Your task to perform on an android device: Search for the best rated tool bag on Lowe's. Image 0: 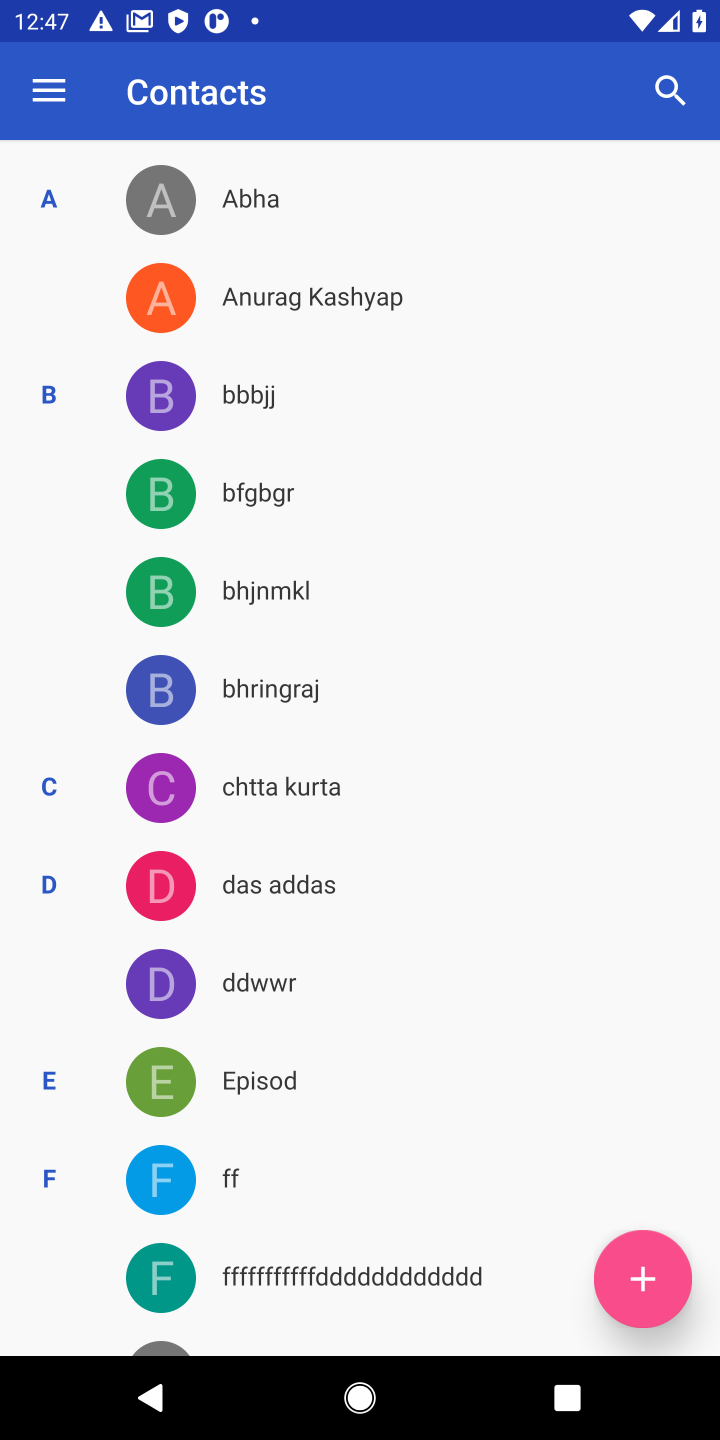
Step 0: press home button
Your task to perform on an android device: Search for the best rated tool bag on Lowe's. Image 1: 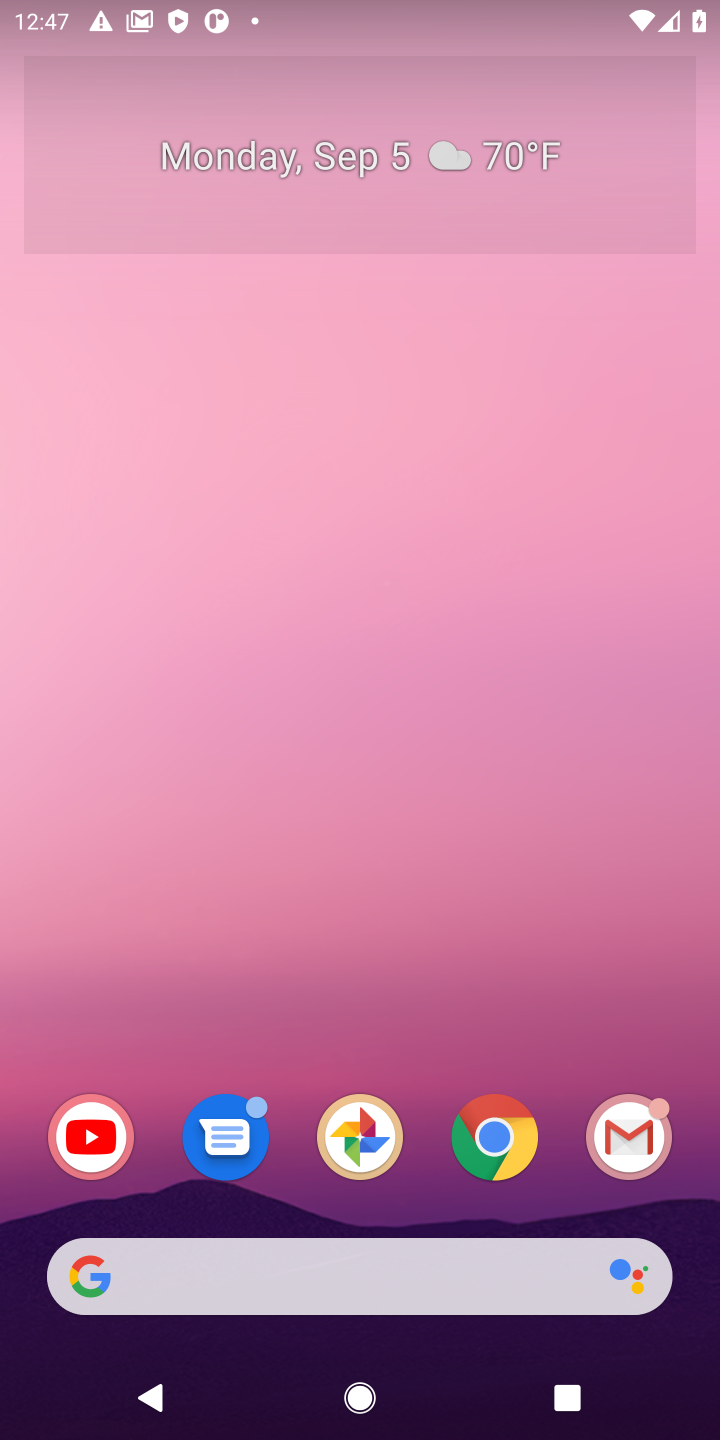
Step 1: click (500, 1111)
Your task to perform on an android device: Search for the best rated tool bag on Lowe's. Image 2: 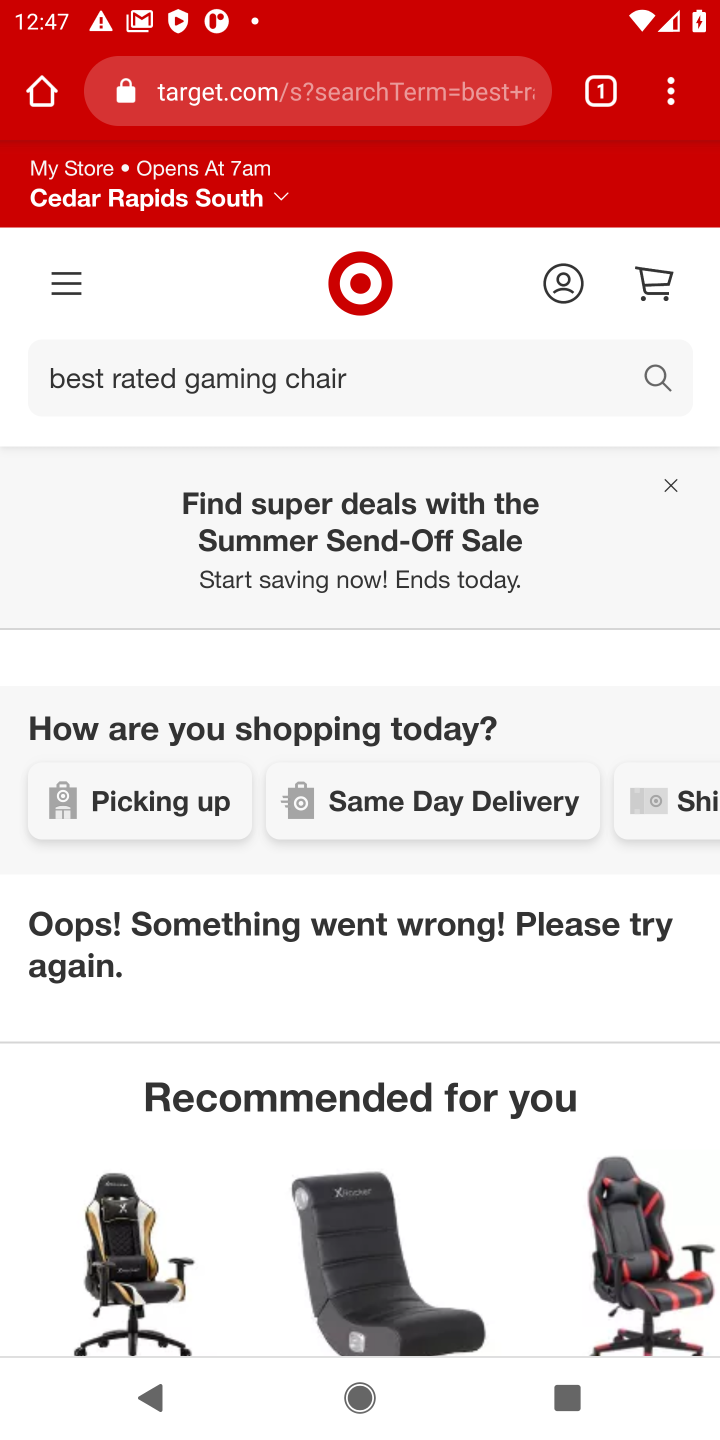
Step 2: click (260, 91)
Your task to perform on an android device: Search for the best rated tool bag on Lowe's. Image 3: 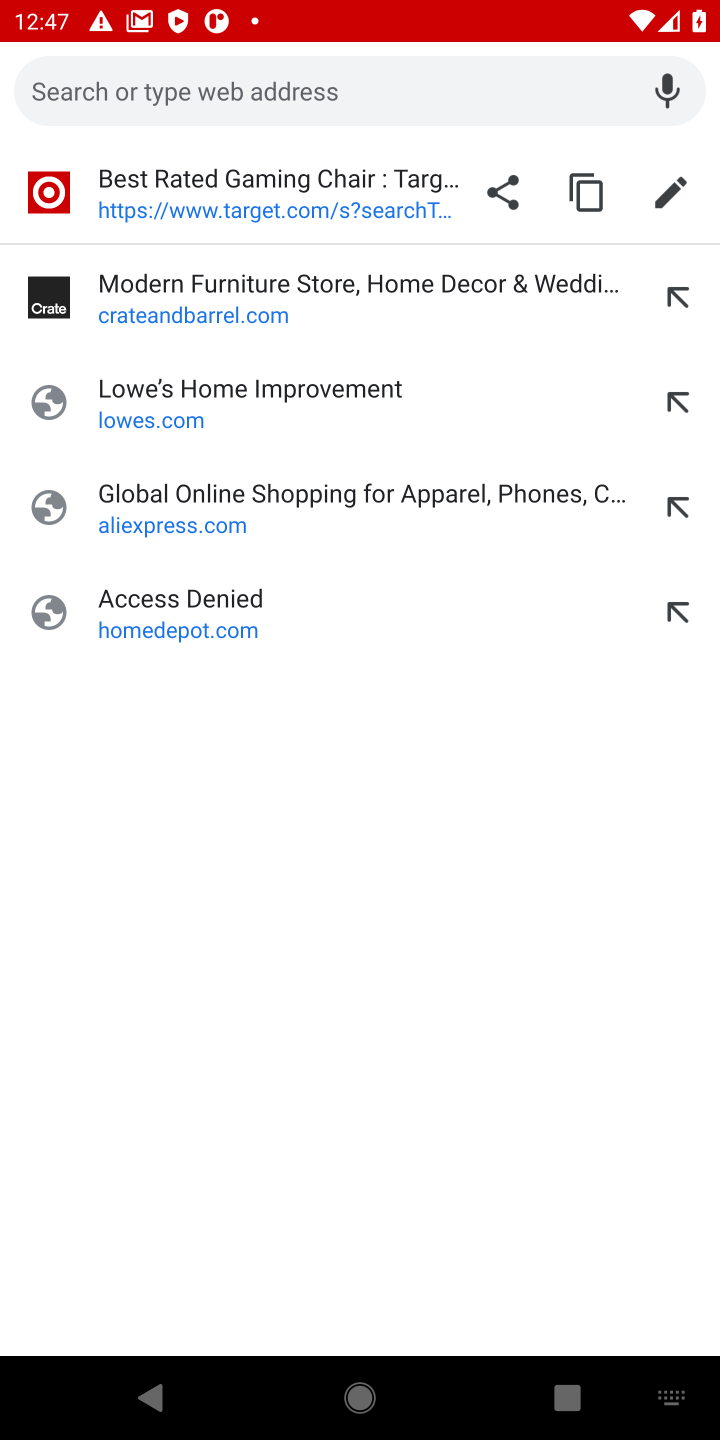
Step 3: type "lowes"
Your task to perform on an android device: Search for the best rated tool bag on Lowe's. Image 4: 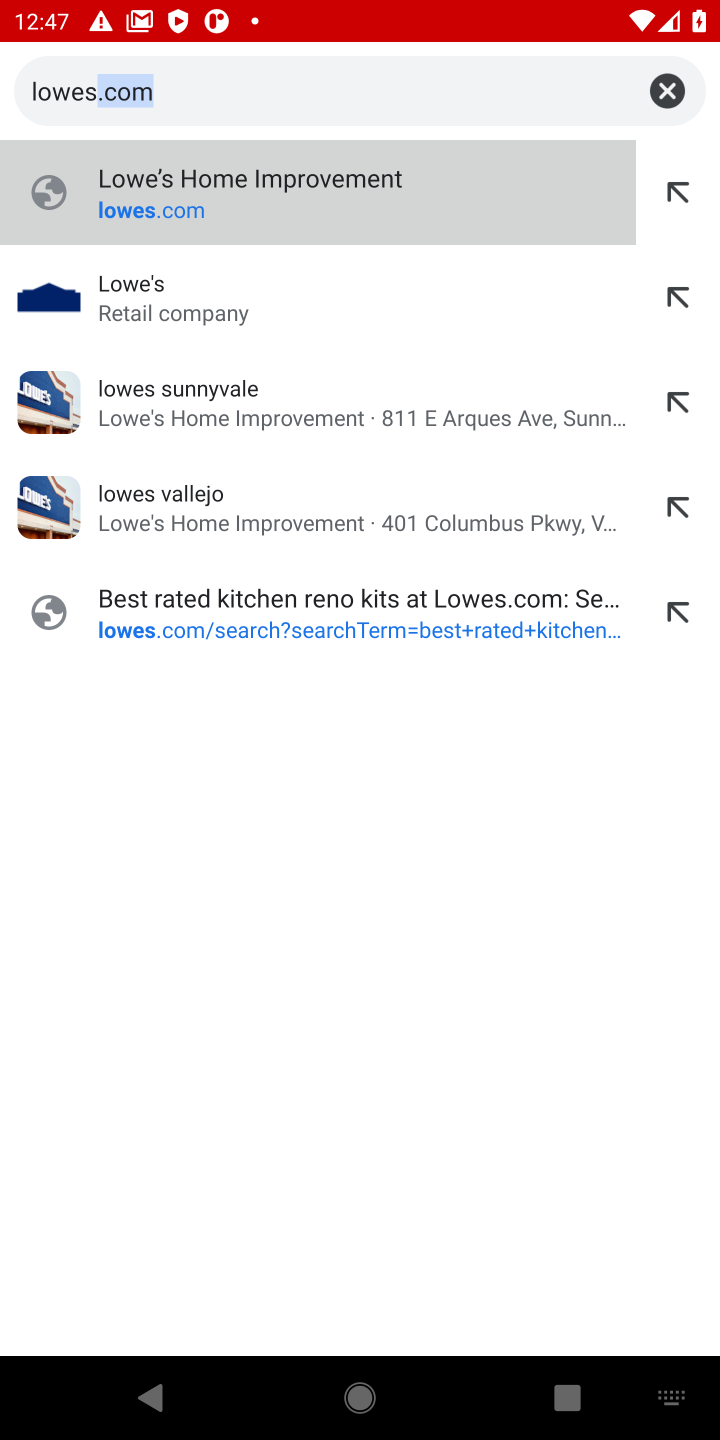
Step 4: click (314, 232)
Your task to perform on an android device: Search for the best rated tool bag on Lowe's. Image 5: 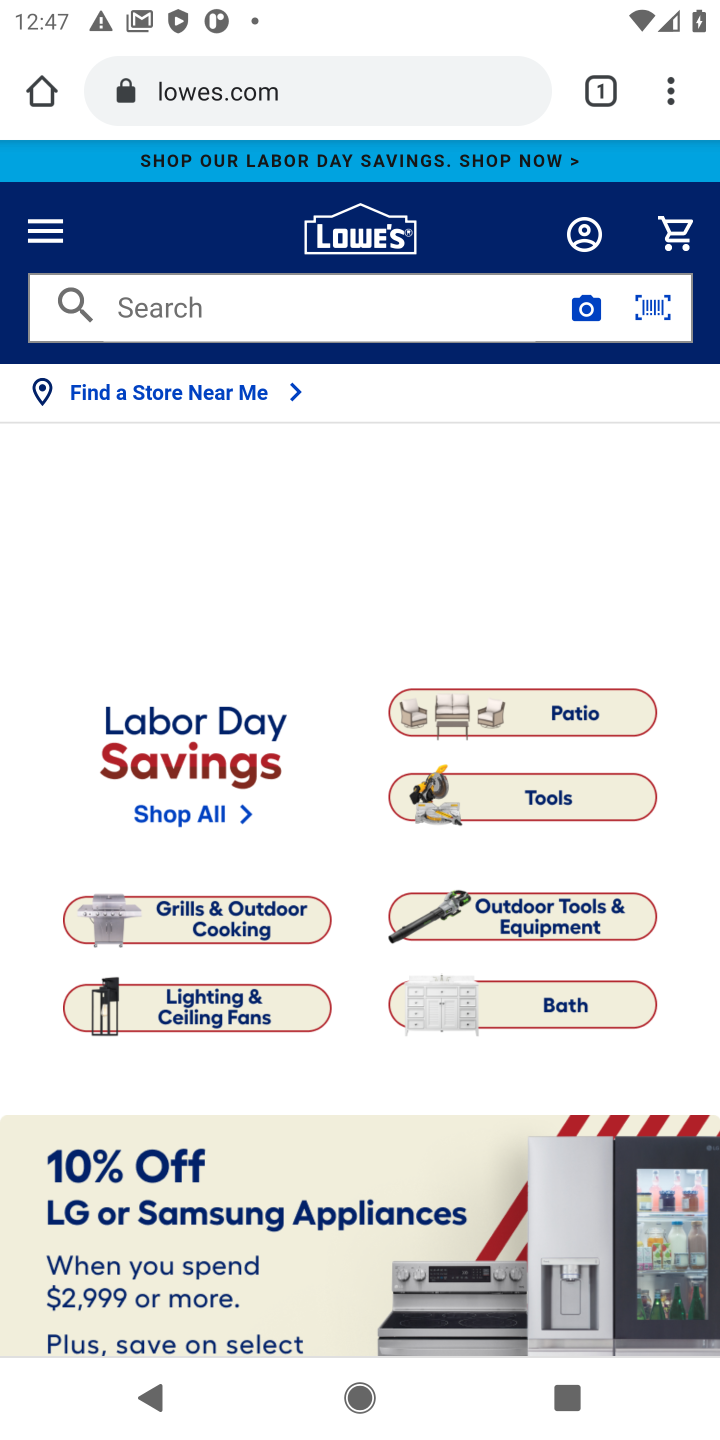
Step 5: click (281, 313)
Your task to perform on an android device: Search for the best rated tool bag on Lowe's. Image 6: 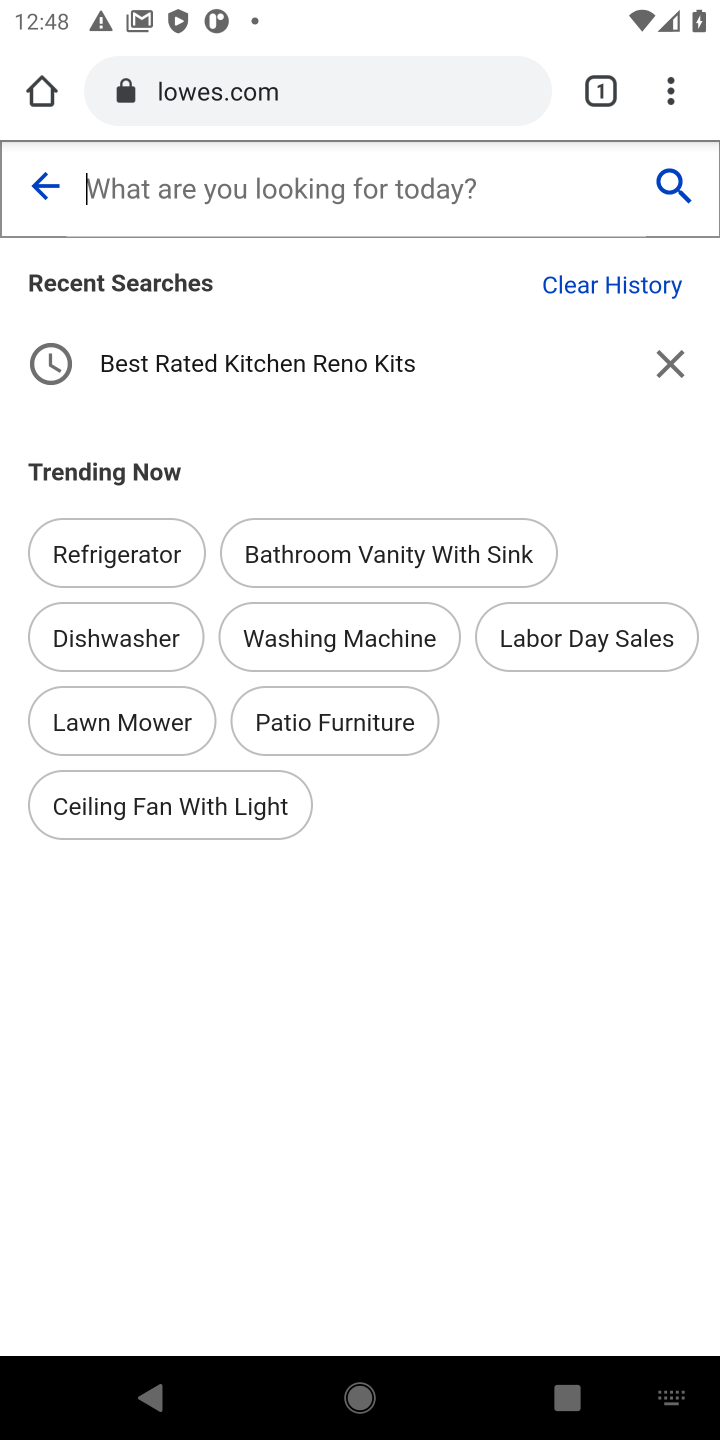
Step 6: type "best rated tool bag"
Your task to perform on an android device: Search for the best rated tool bag on Lowe's. Image 7: 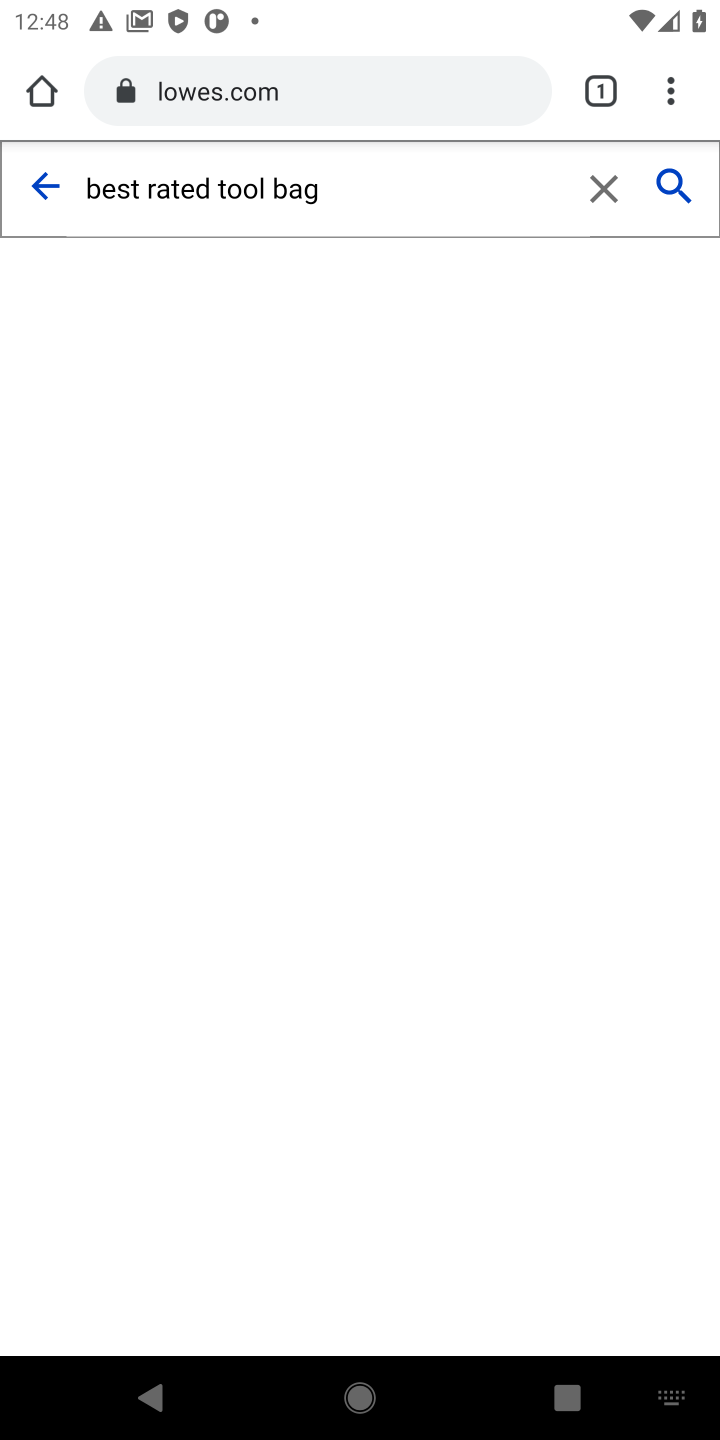
Step 7: press enter
Your task to perform on an android device: Search for the best rated tool bag on Lowe's. Image 8: 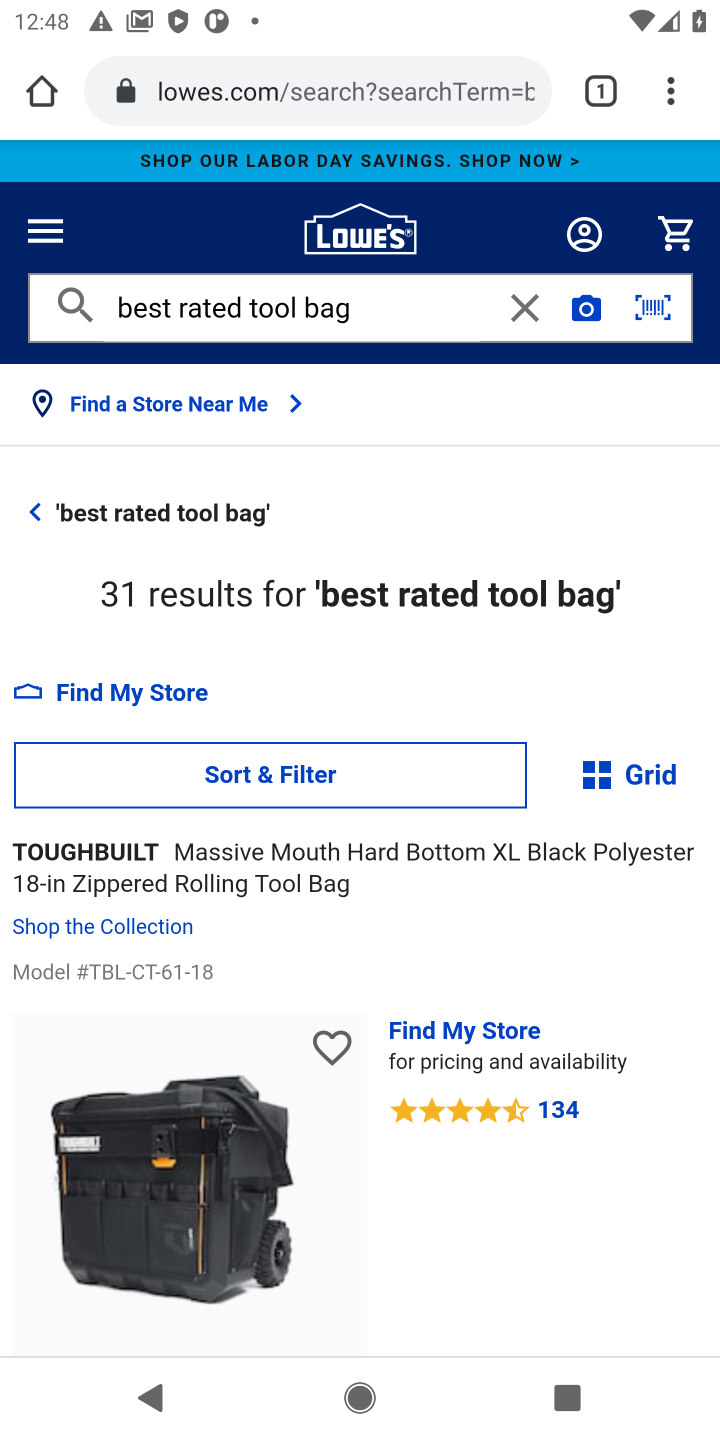
Step 8: task complete